Your task to perform on an android device: Open my contact list Image 0: 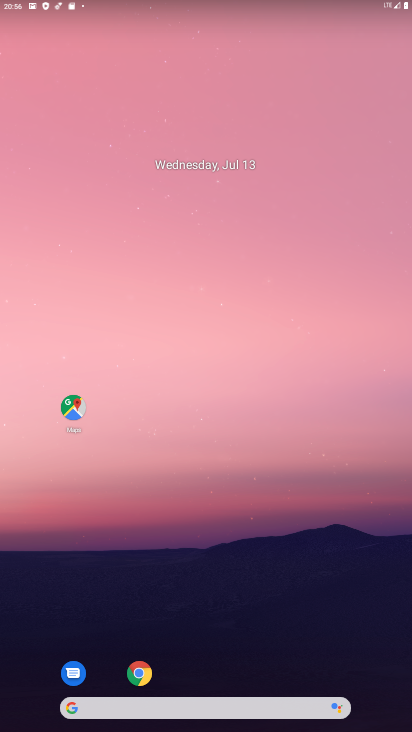
Step 0: drag from (188, 645) to (223, 224)
Your task to perform on an android device: Open my contact list Image 1: 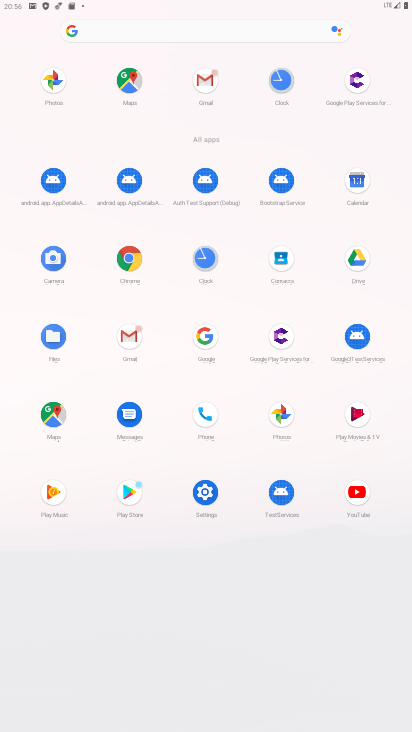
Step 1: click (280, 252)
Your task to perform on an android device: Open my contact list Image 2: 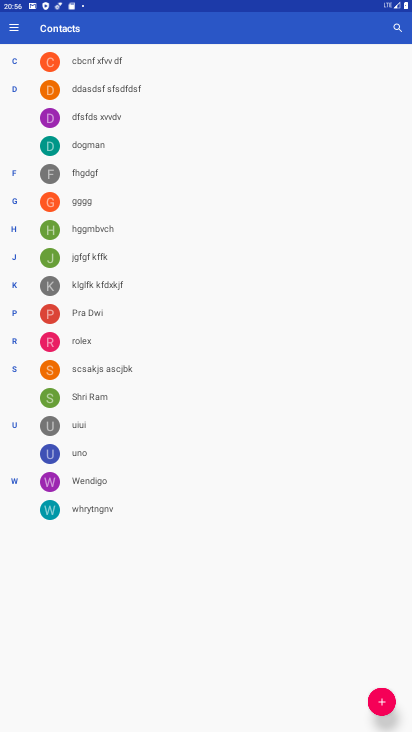
Step 2: task complete